Your task to perform on an android device: uninstall "Calculator" Image 0: 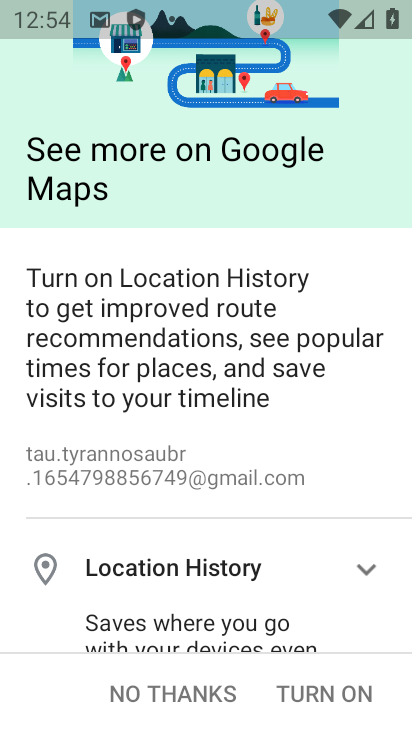
Step 0: press back button
Your task to perform on an android device: uninstall "Calculator" Image 1: 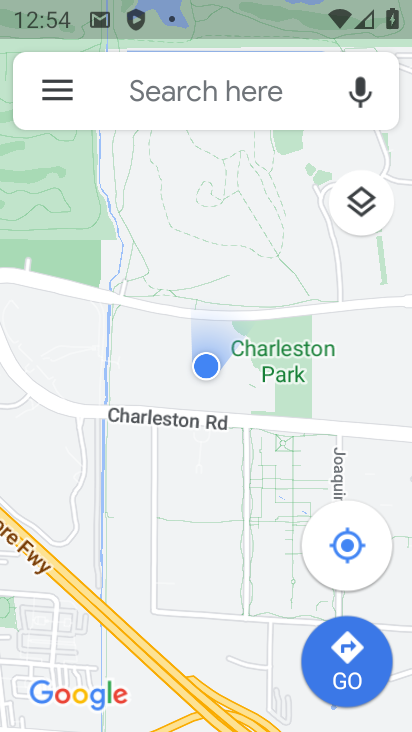
Step 1: press back button
Your task to perform on an android device: uninstall "Calculator" Image 2: 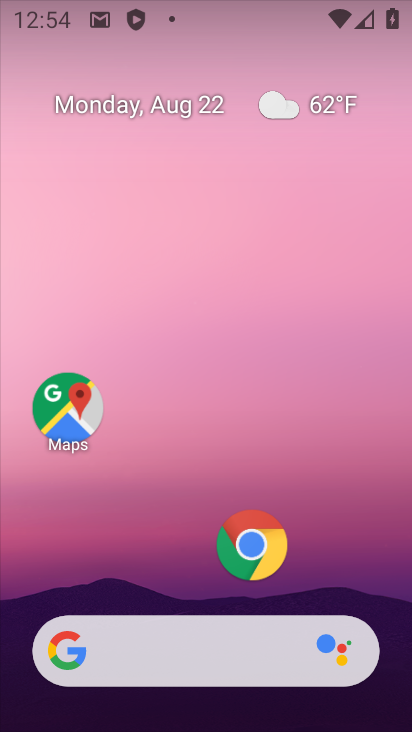
Step 2: drag from (130, 600) to (196, 65)
Your task to perform on an android device: uninstall "Calculator" Image 3: 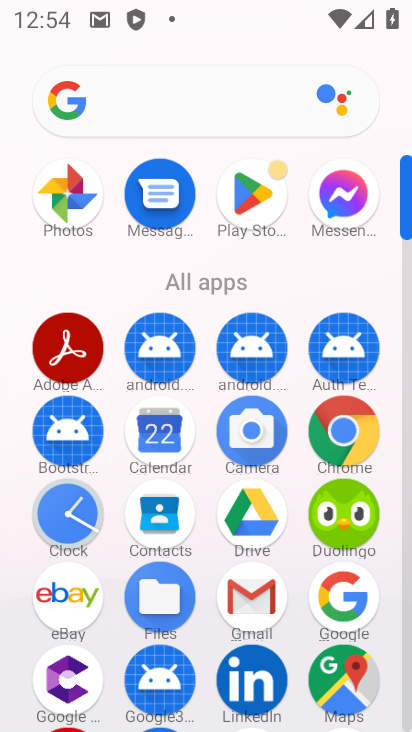
Step 3: click (237, 178)
Your task to perform on an android device: uninstall "Calculator" Image 4: 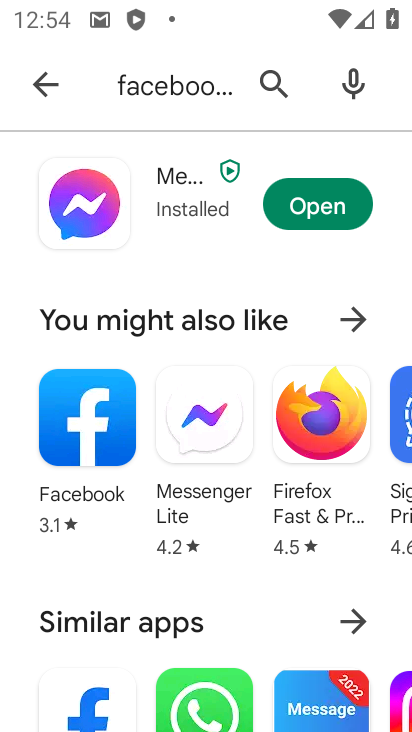
Step 4: click (284, 96)
Your task to perform on an android device: uninstall "Calculator" Image 5: 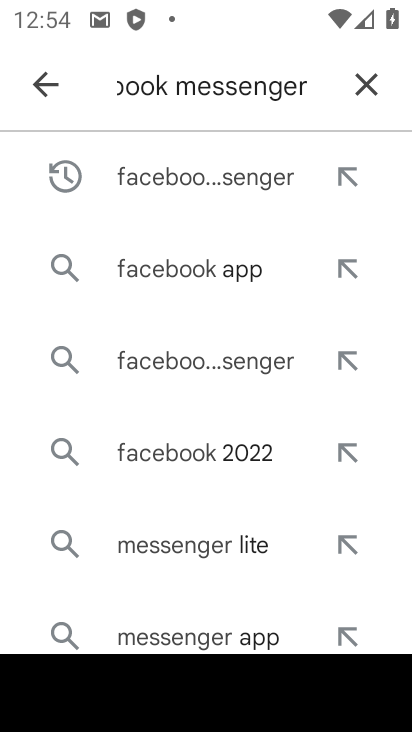
Step 5: click (369, 67)
Your task to perform on an android device: uninstall "Calculator" Image 6: 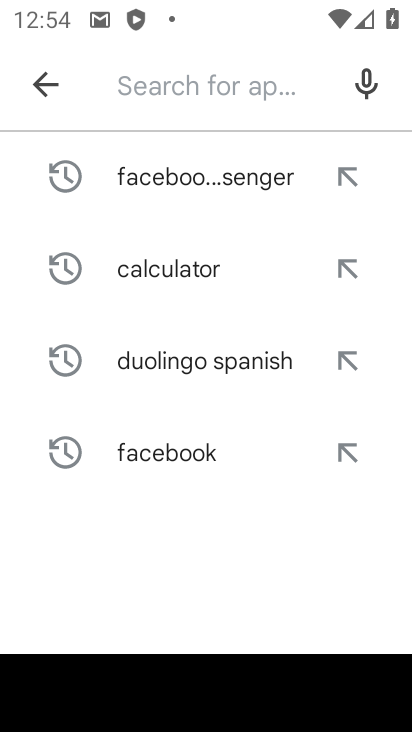
Step 6: click (195, 93)
Your task to perform on an android device: uninstall "Calculator" Image 7: 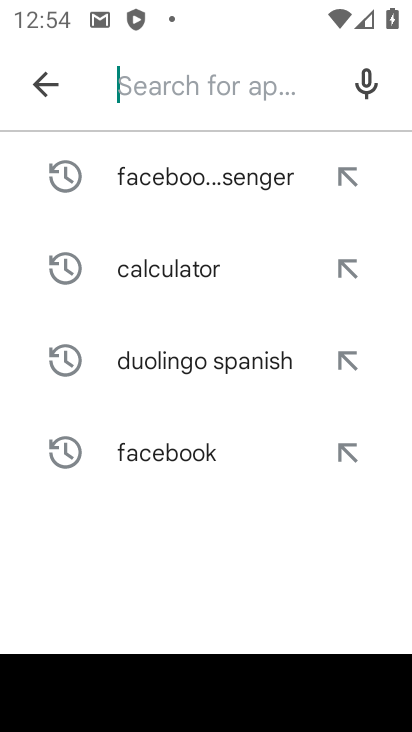
Step 7: type "Calculator"
Your task to perform on an android device: uninstall "Calculator" Image 8: 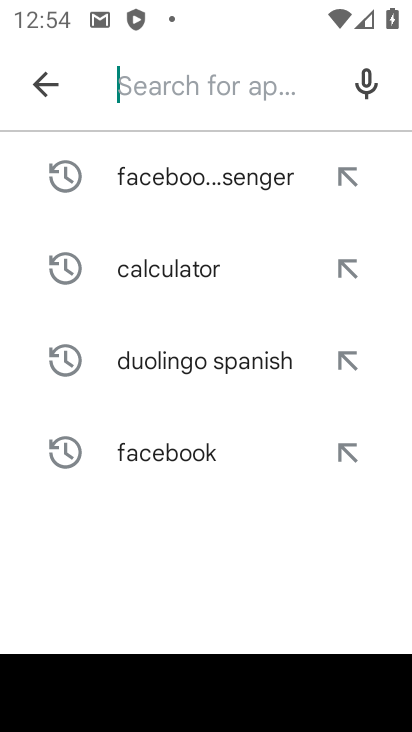
Step 8: click (136, 267)
Your task to perform on an android device: uninstall "Calculator" Image 9: 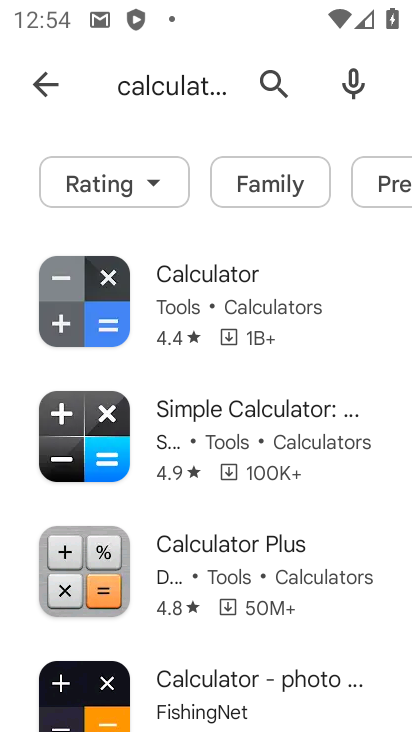
Step 9: click (191, 294)
Your task to perform on an android device: uninstall "Calculator" Image 10: 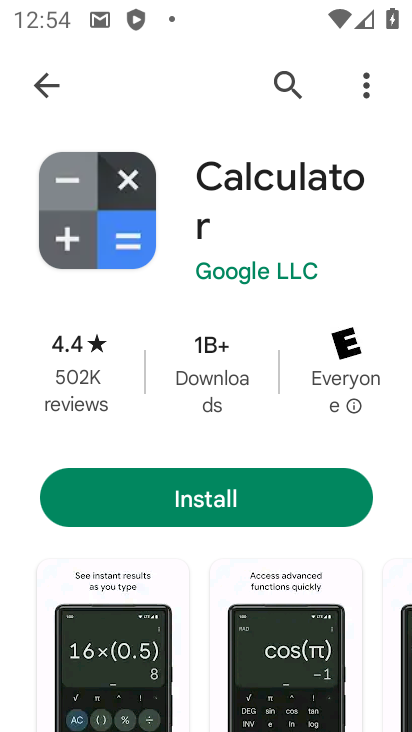
Step 10: task complete